Your task to perform on an android device: Open Reddit.com Image 0: 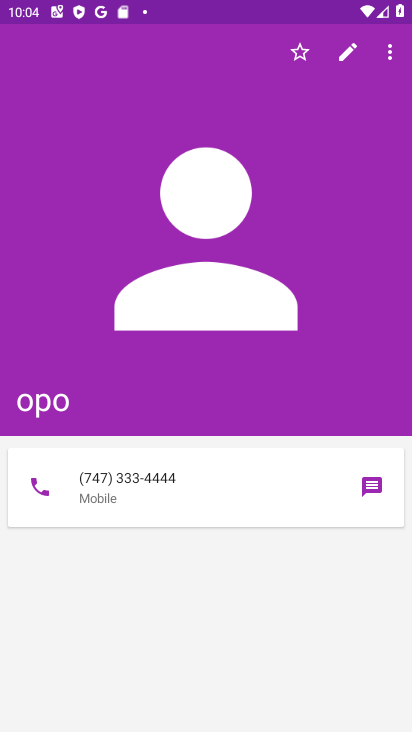
Step 0: press home button
Your task to perform on an android device: Open Reddit.com Image 1: 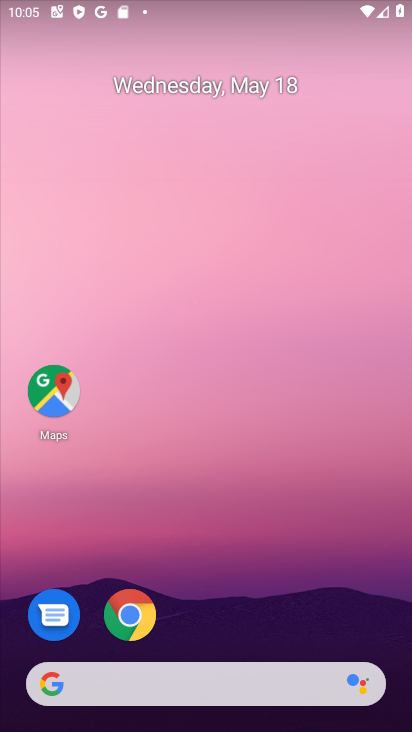
Step 1: click (132, 608)
Your task to perform on an android device: Open Reddit.com Image 2: 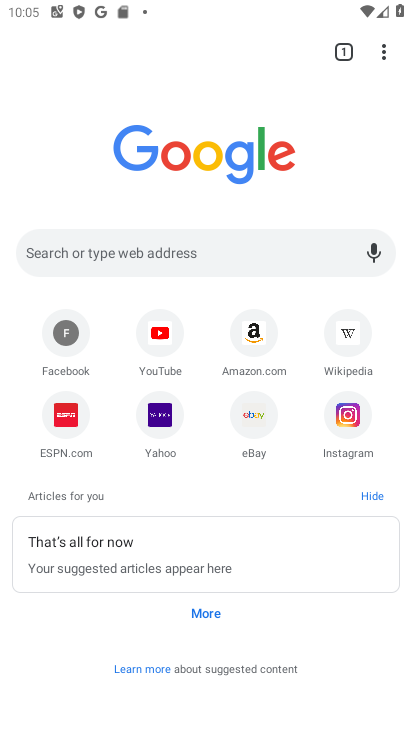
Step 2: click (194, 263)
Your task to perform on an android device: Open Reddit.com Image 3: 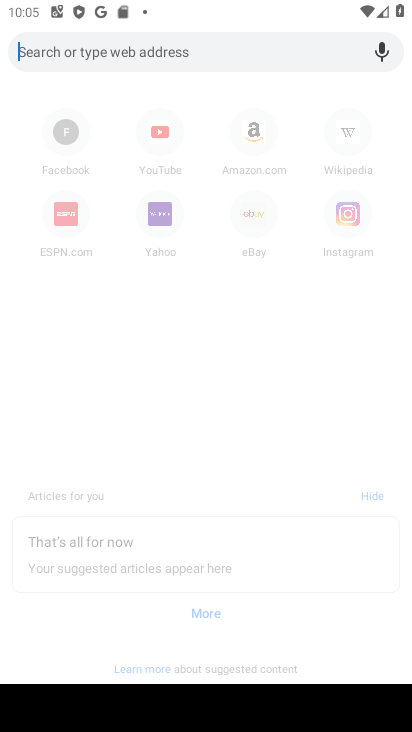
Step 3: type "reddit.com"
Your task to perform on an android device: Open Reddit.com Image 4: 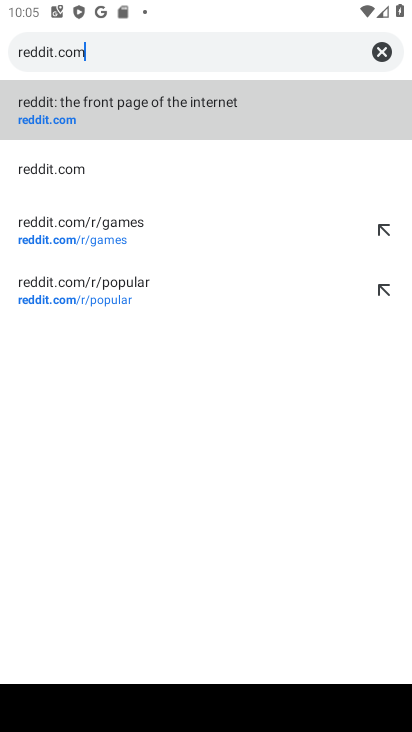
Step 4: click (196, 114)
Your task to perform on an android device: Open Reddit.com Image 5: 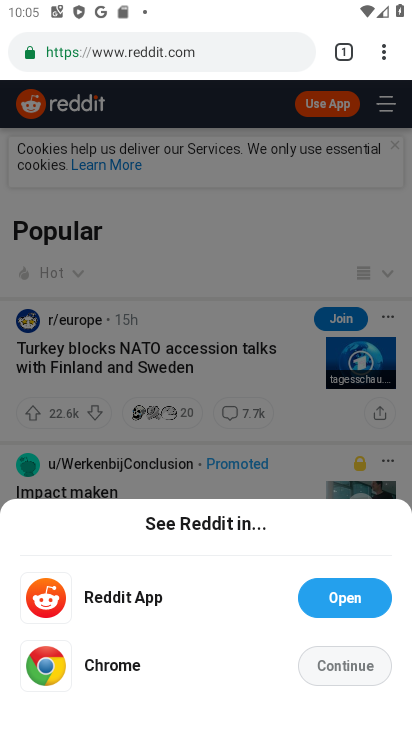
Step 5: click (350, 670)
Your task to perform on an android device: Open Reddit.com Image 6: 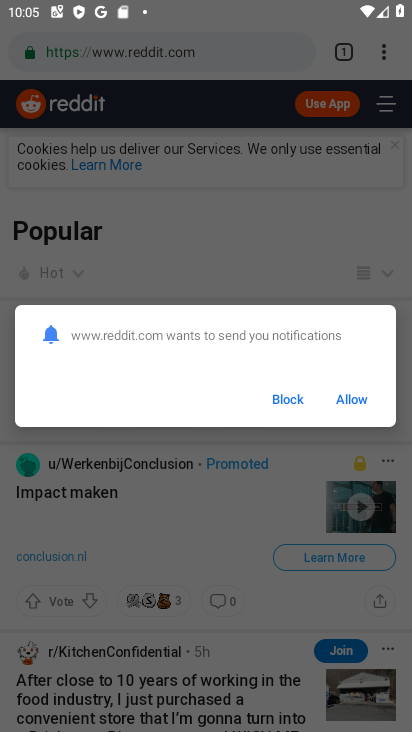
Step 6: task complete